Your task to perform on an android device: Open the map Image 0: 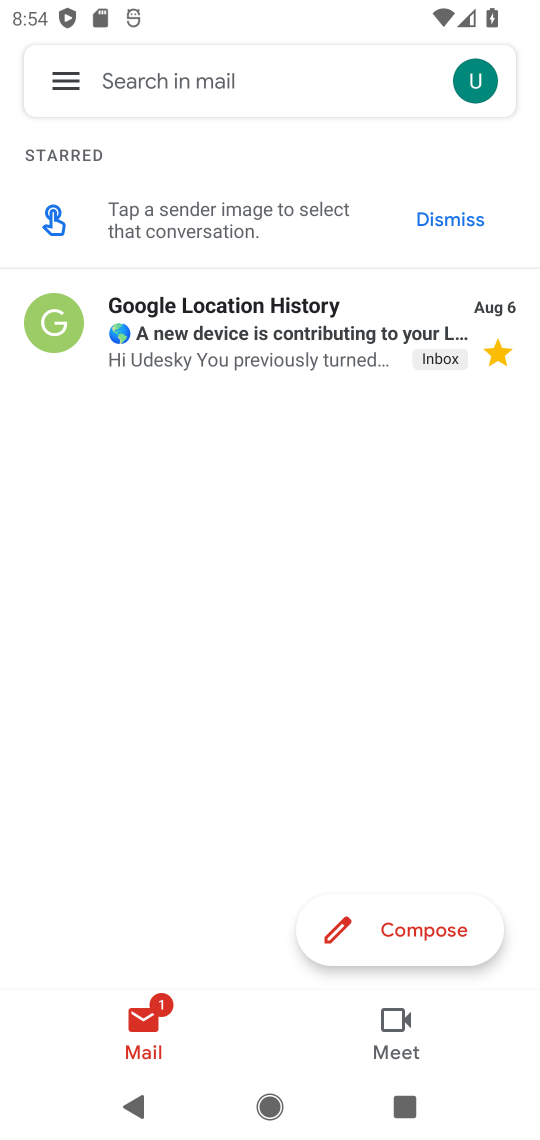
Step 0: press home button
Your task to perform on an android device: Open the map Image 1: 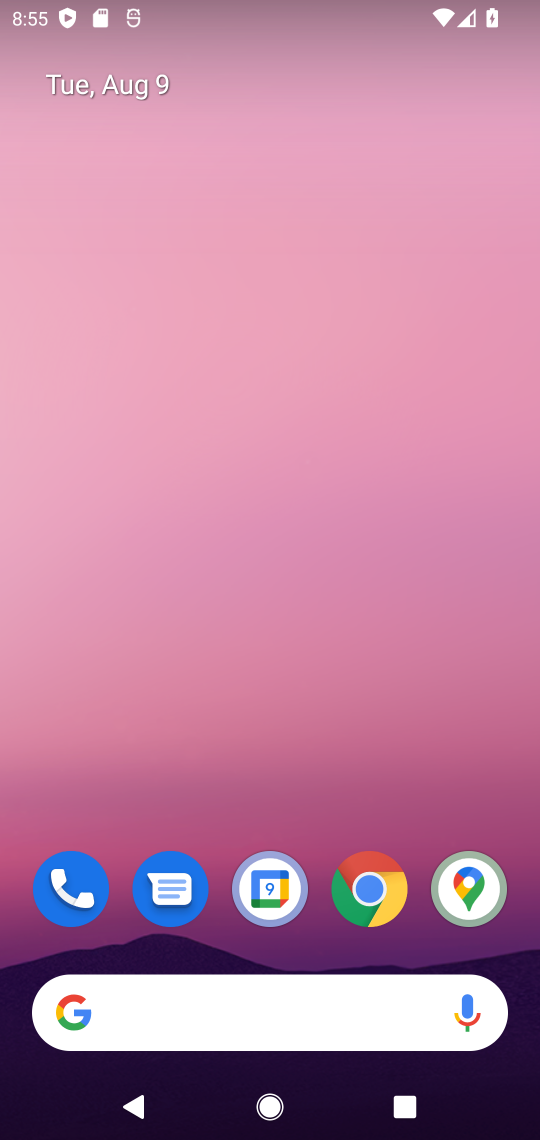
Step 1: drag from (268, 867) to (305, 101)
Your task to perform on an android device: Open the map Image 2: 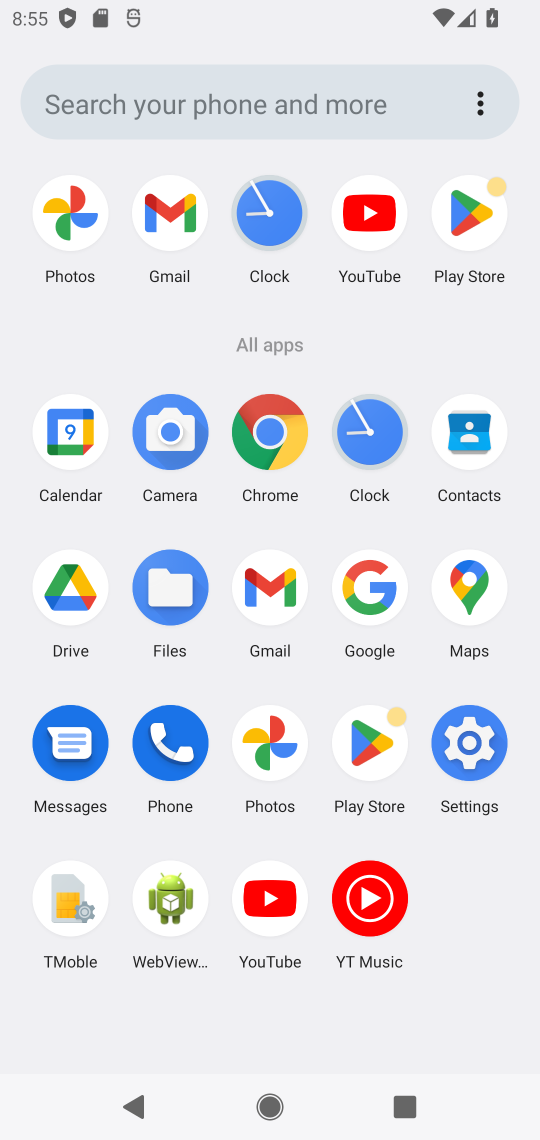
Step 2: click (461, 572)
Your task to perform on an android device: Open the map Image 3: 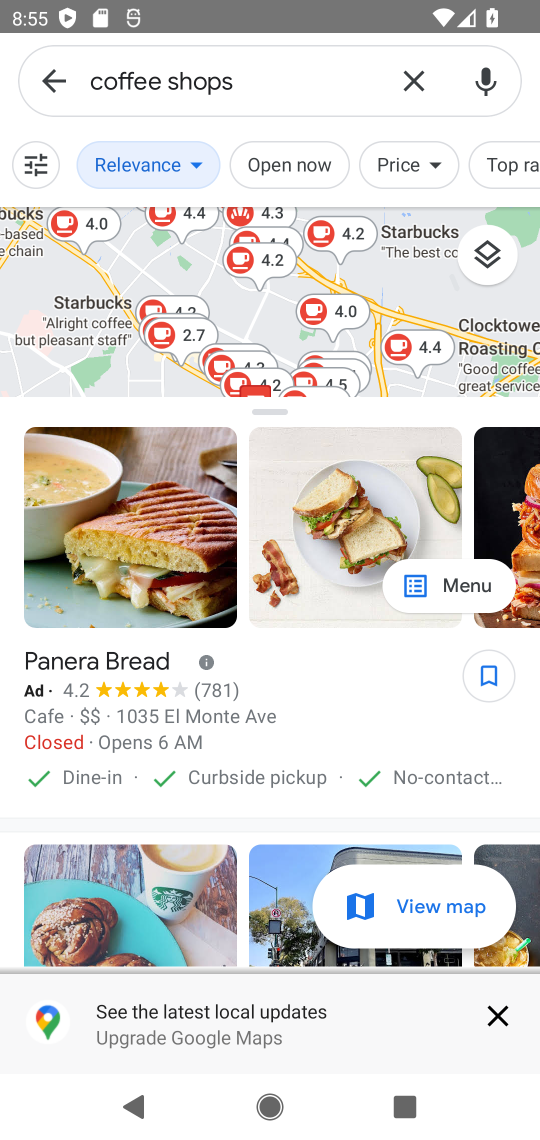
Step 3: task complete